Your task to perform on an android device: Open privacy settings Image 0: 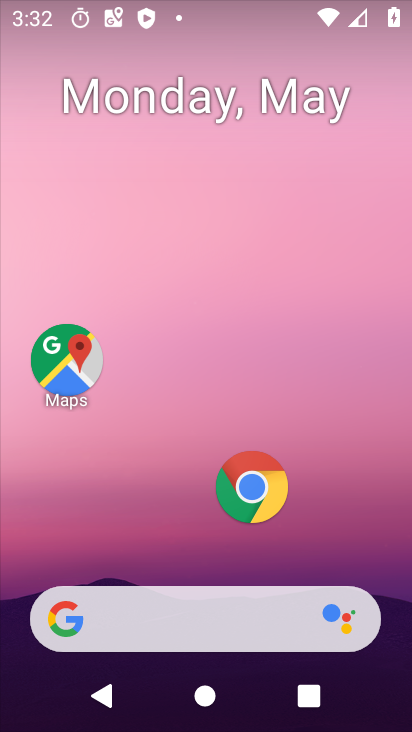
Step 0: drag from (179, 522) to (180, 77)
Your task to perform on an android device: Open privacy settings Image 1: 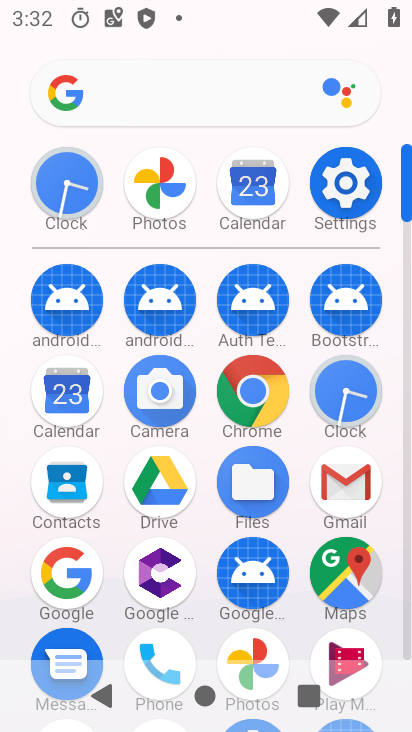
Step 1: click (345, 187)
Your task to perform on an android device: Open privacy settings Image 2: 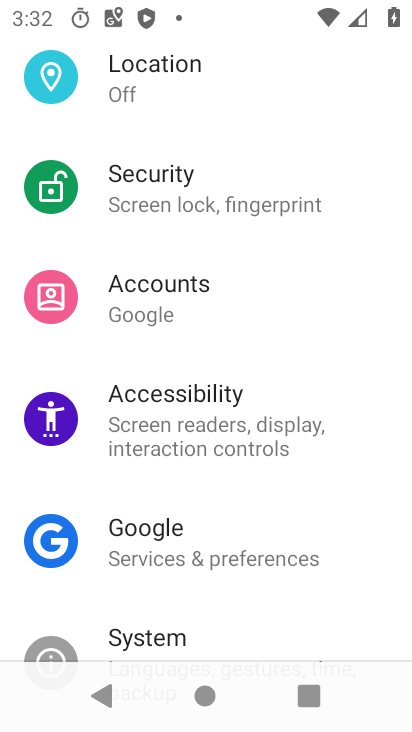
Step 2: drag from (180, 366) to (194, 562)
Your task to perform on an android device: Open privacy settings Image 3: 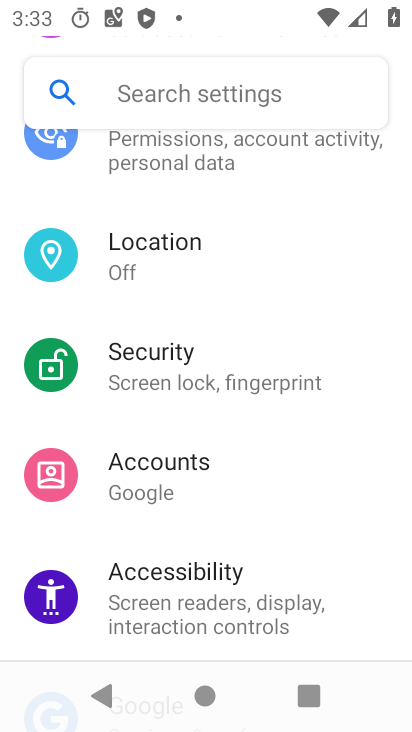
Step 3: drag from (145, 319) to (195, 565)
Your task to perform on an android device: Open privacy settings Image 4: 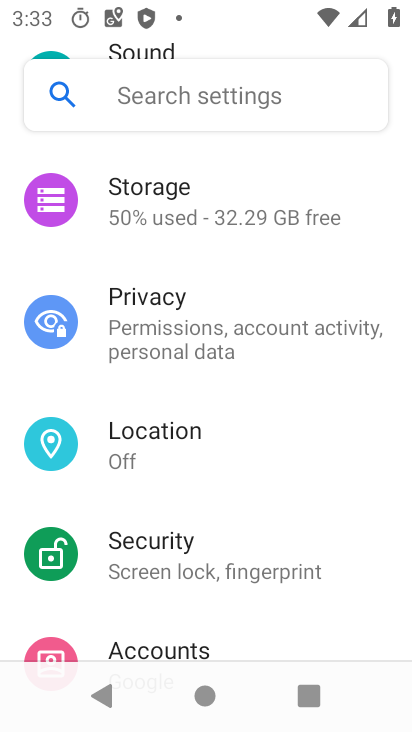
Step 4: click (208, 298)
Your task to perform on an android device: Open privacy settings Image 5: 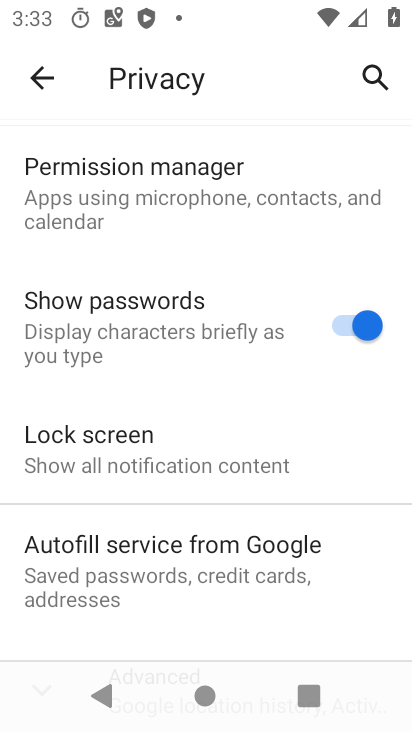
Step 5: task complete